Your task to perform on an android device: What's on the menu at Chipotle? Image 0: 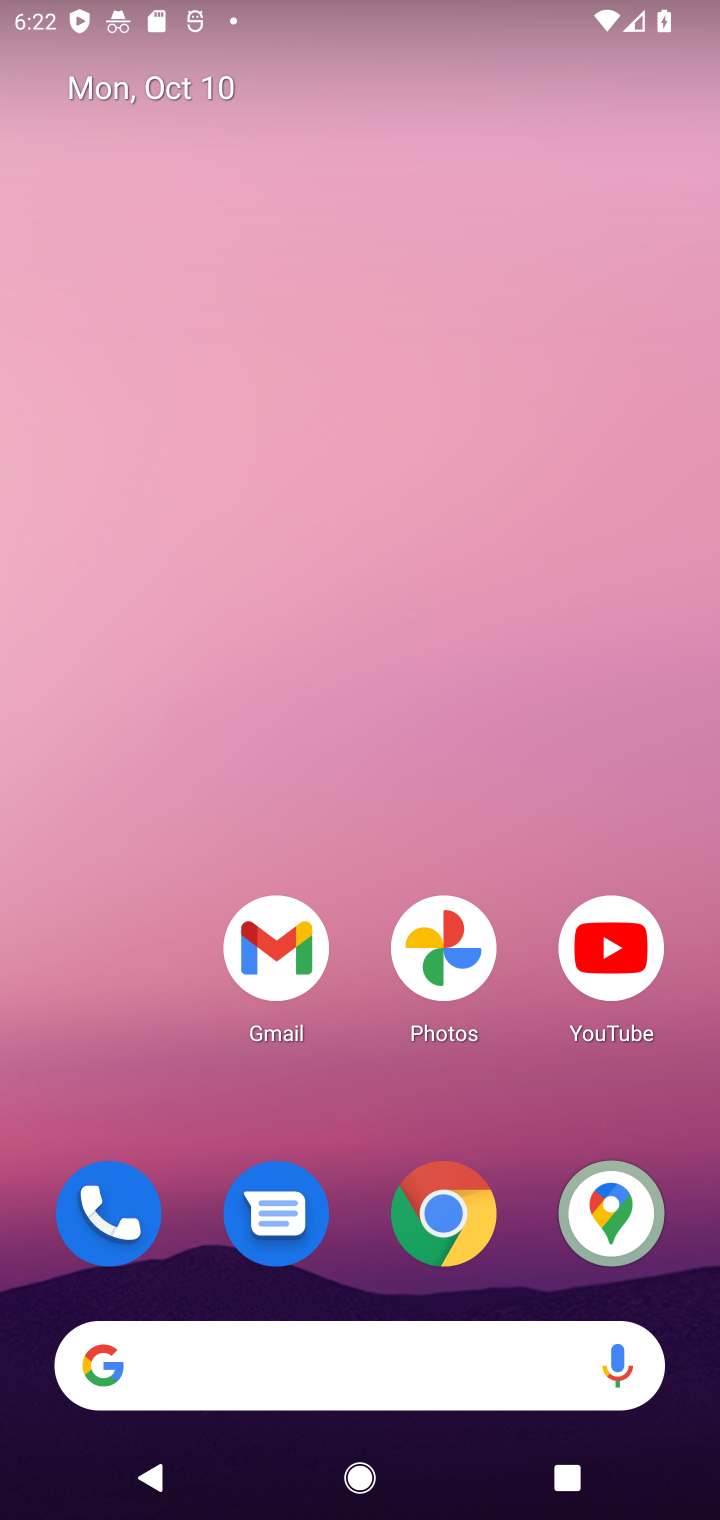
Step 0: click (275, 1388)
Your task to perform on an android device: What's on the menu at Chipotle? Image 1: 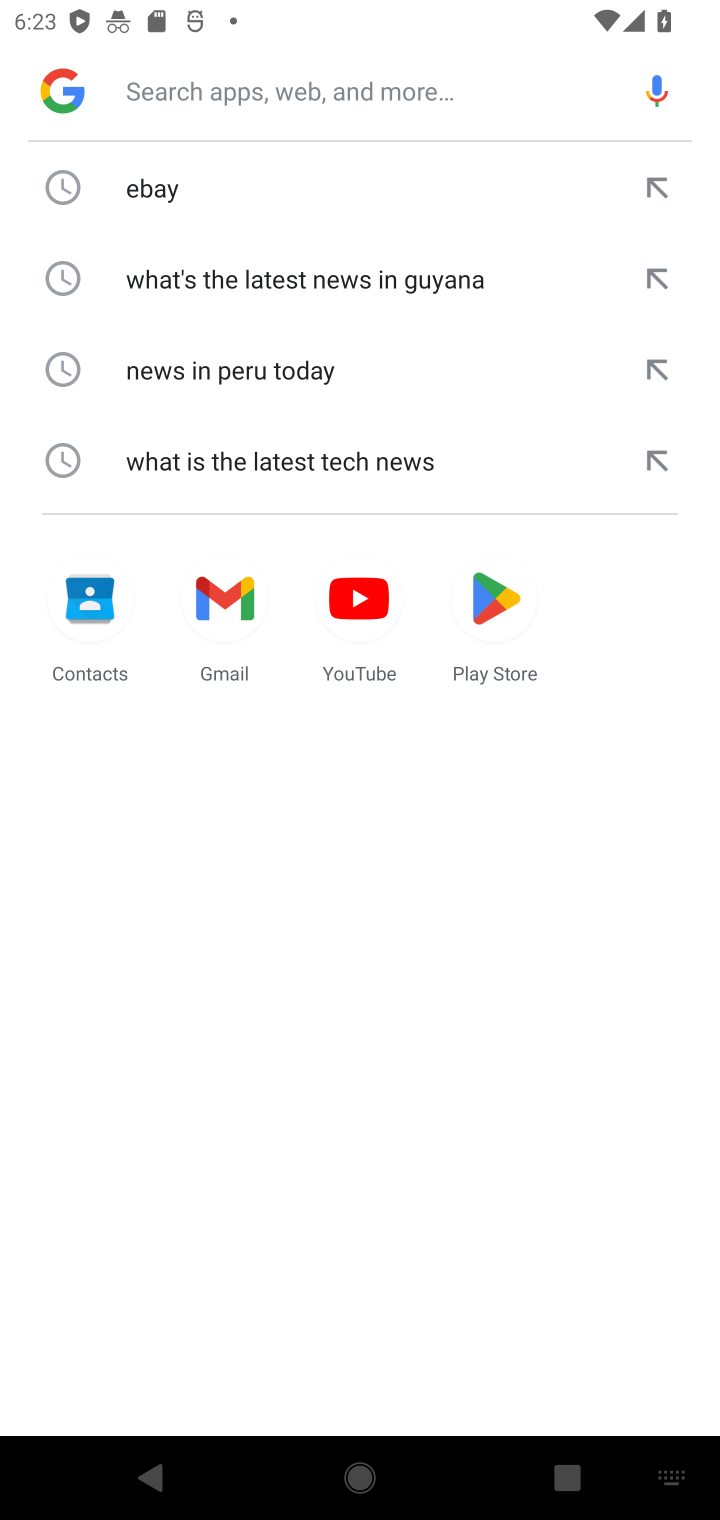
Step 1: click (243, 98)
Your task to perform on an android device: What's on the menu at Chipotle? Image 2: 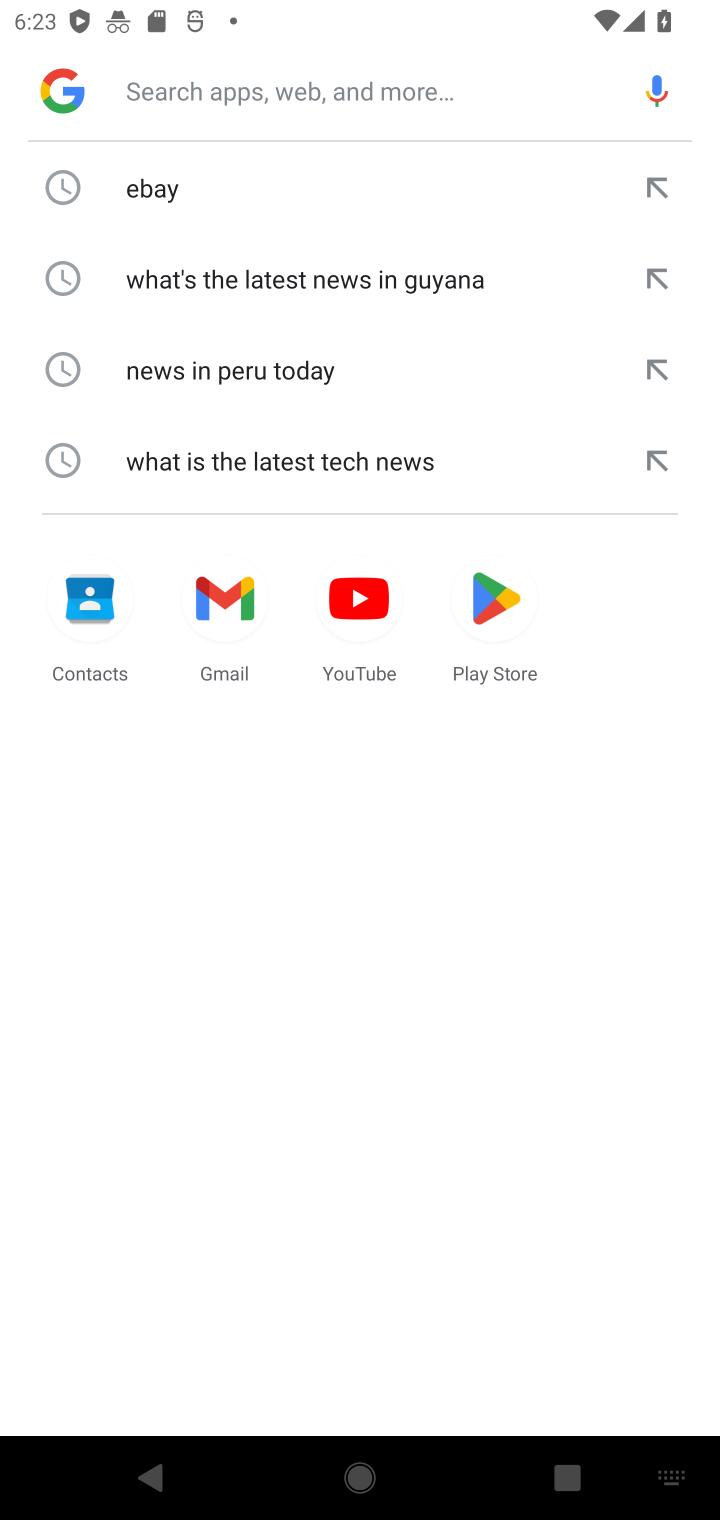
Step 2: type "What's on the menu at Chipotle"
Your task to perform on an android device: What's on the menu at Chipotle? Image 3: 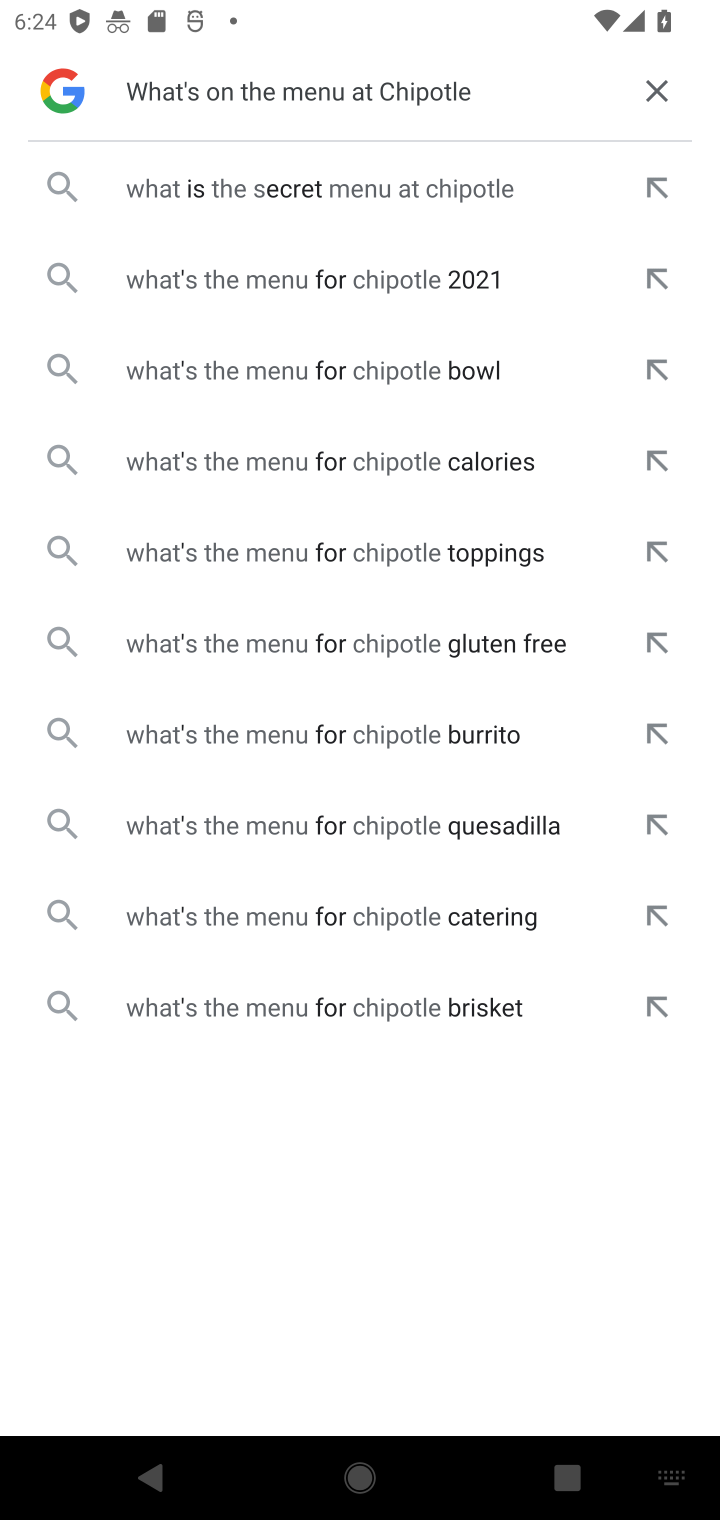
Step 3: click (401, 187)
Your task to perform on an android device: What's on the menu at Chipotle? Image 4: 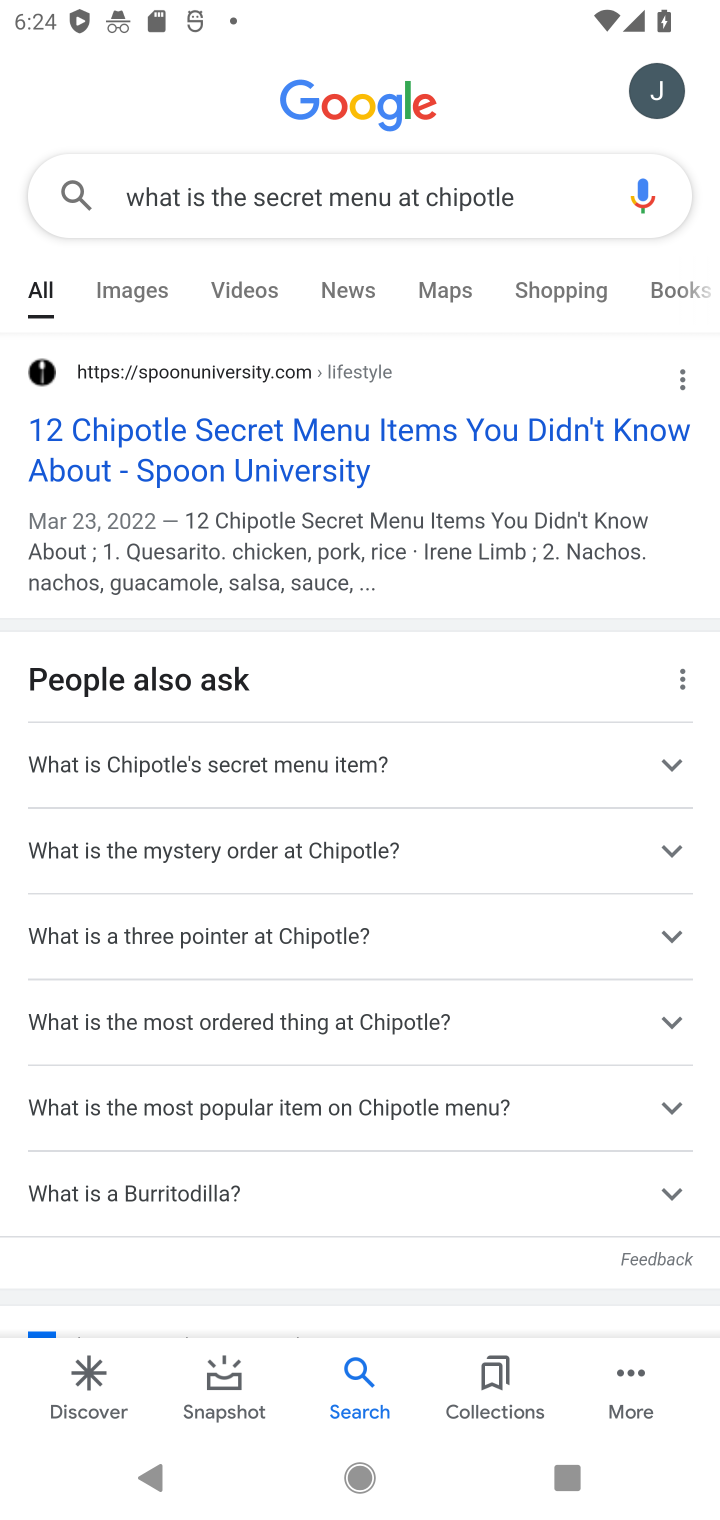
Step 4: click (307, 438)
Your task to perform on an android device: What's on the menu at Chipotle? Image 5: 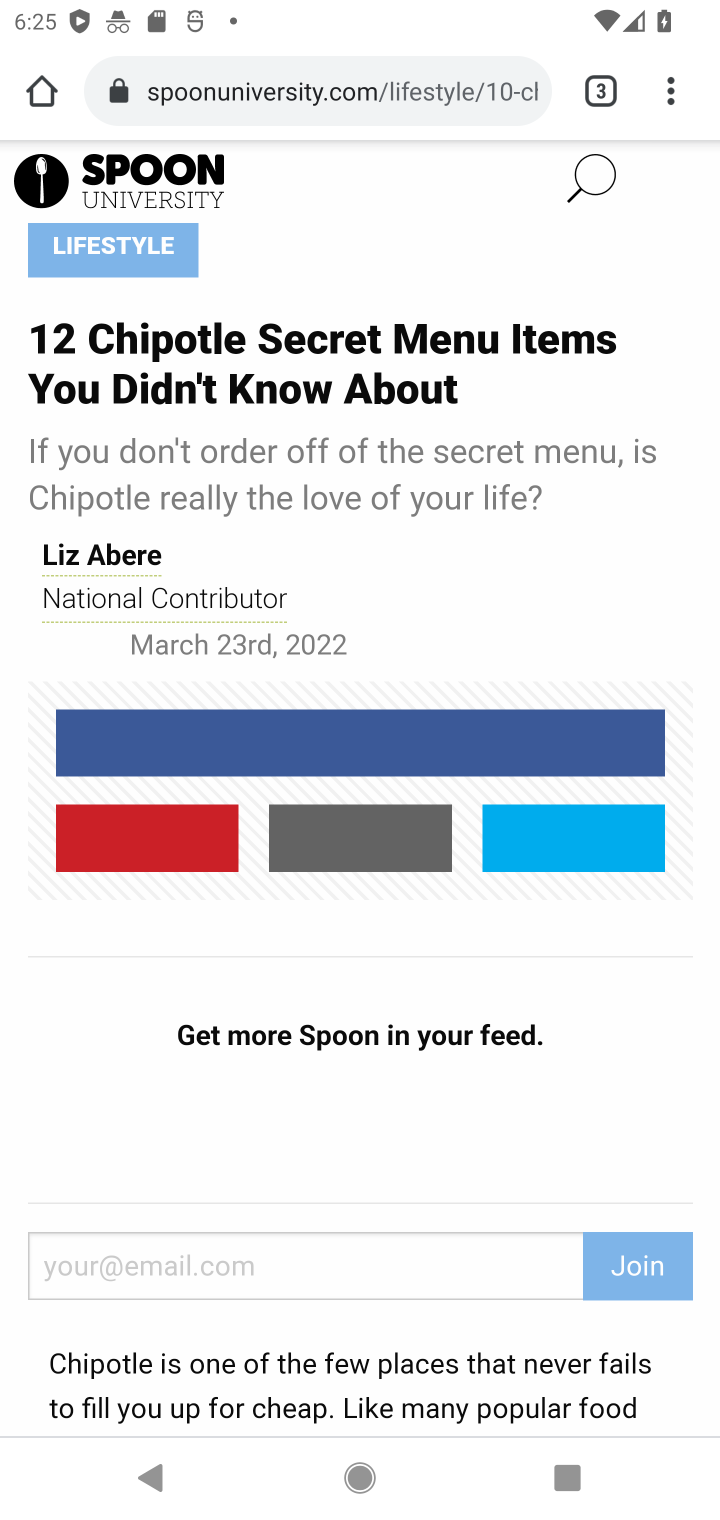
Step 5: task complete